Your task to perform on an android device: Open calendar and show me the fourth week of next month Image 0: 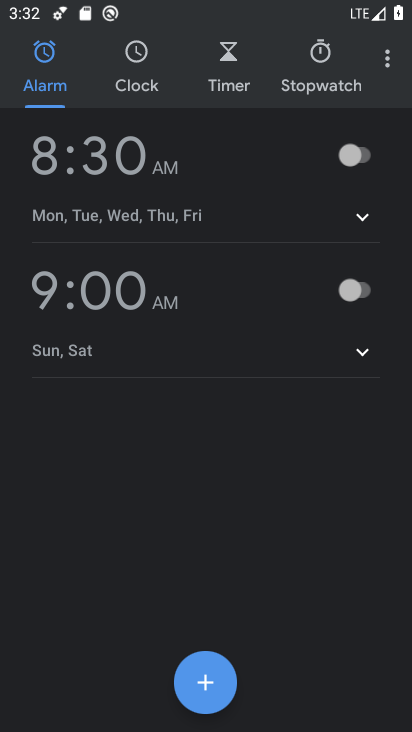
Step 0: press home button
Your task to perform on an android device: Open calendar and show me the fourth week of next month Image 1: 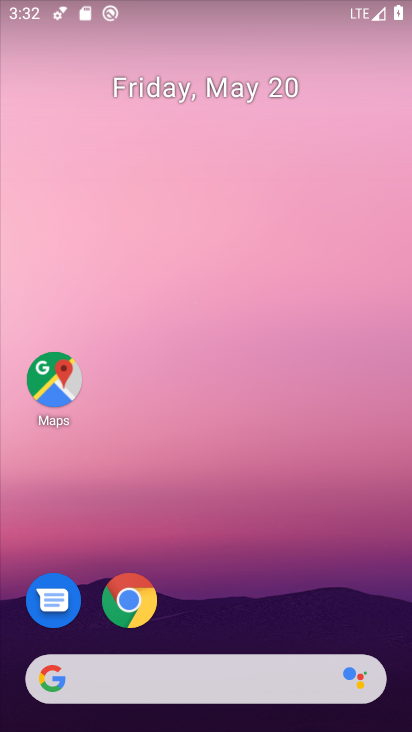
Step 1: drag from (338, 605) to (342, 241)
Your task to perform on an android device: Open calendar and show me the fourth week of next month Image 2: 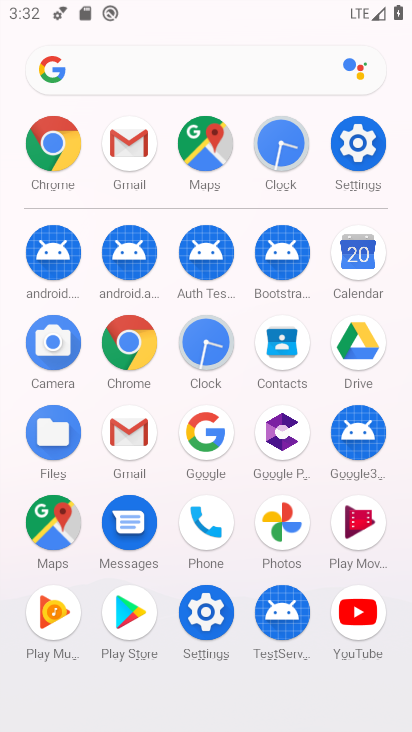
Step 2: click (352, 278)
Your task to perform on an android device: Open calendar and show me the fourth week of next month Image 3: 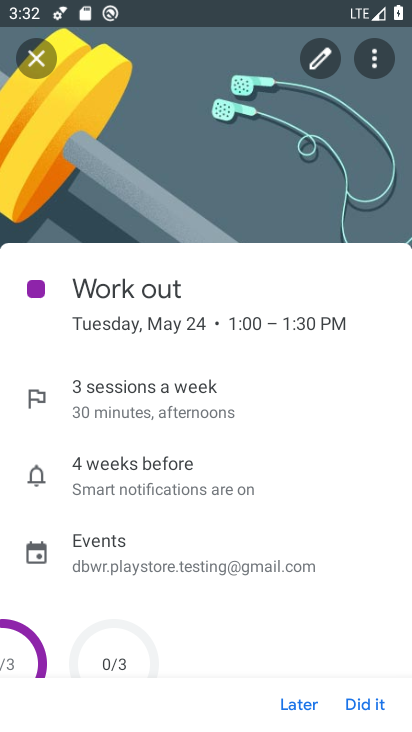
Step 3: click (28, 72)
Your task to perform on an android device: Open calendar and show me the fourth week of next month Image 4: 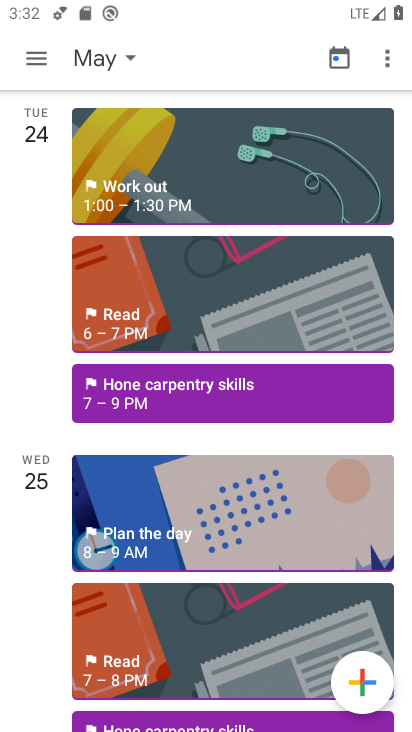
Step 4: click (131, 56)
Your task to perform on an android device: Open calendar and show me the fourth week of next month Image 5: 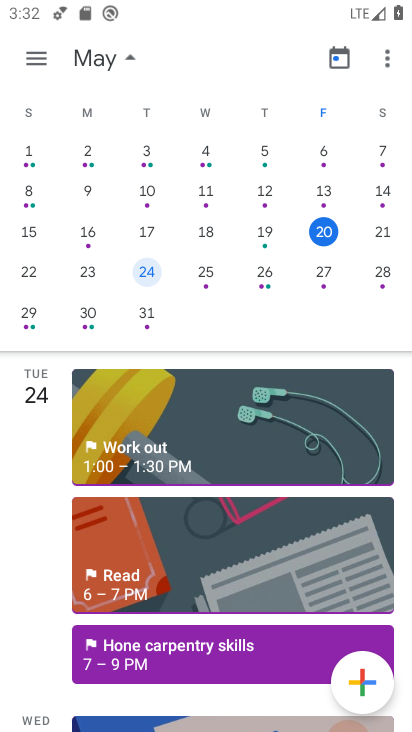
Step 5: drag from (399, 127) to (0, 135)
Your task to perform on an android device: Open calendar and show me the fourth week of next month Image 6: 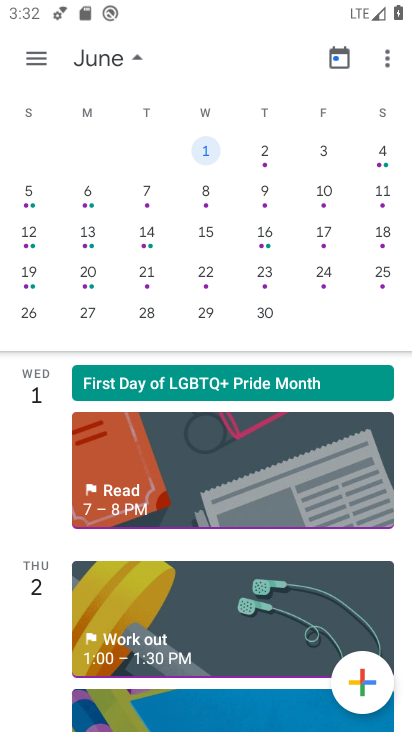
Step 6: click (149, 276)
Your task to perform on an android device: Open calendar and show me the fourth week of next month Image 7: 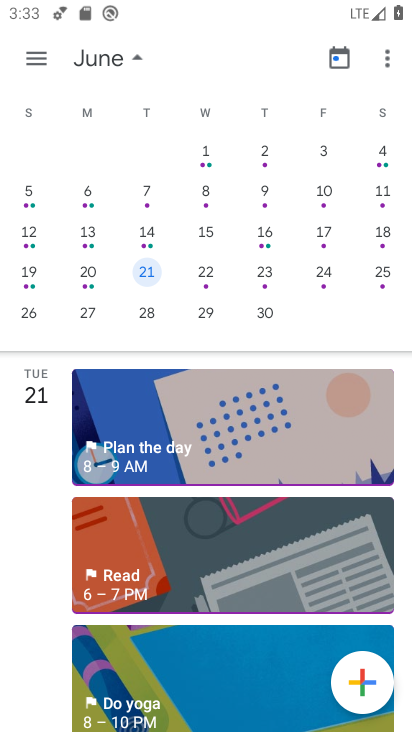
Step 7: task complete